Your task to perform on an android device: turn on wifi Image 0: 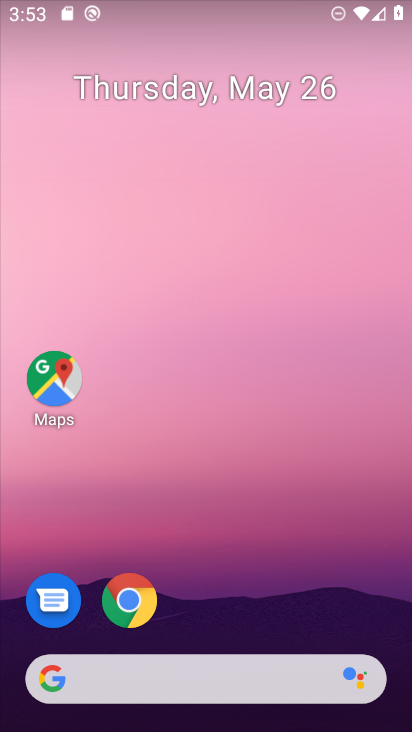
Step 0: drag from (269, 563) to (225, 39)
Your task to perform on an android device: turn on wifi Image 1: 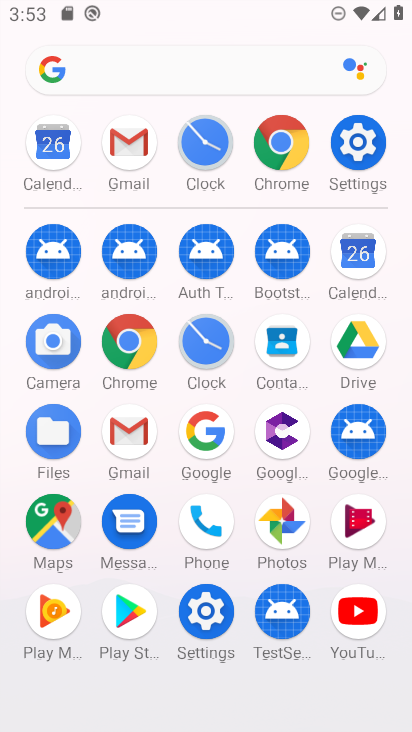
Step 1: drag from (10, 543) to (19, 188)
Your task to perform on an android device: turn on wifi Image 2: 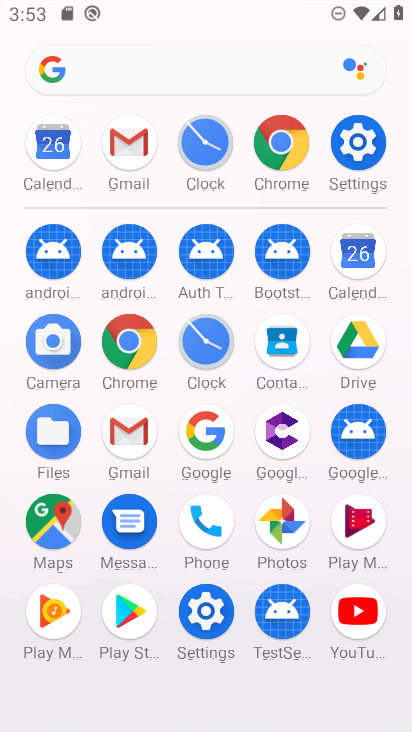
Step 2: click (205, 615)
Your task to perform on an android device: turn on wifi Image 3: 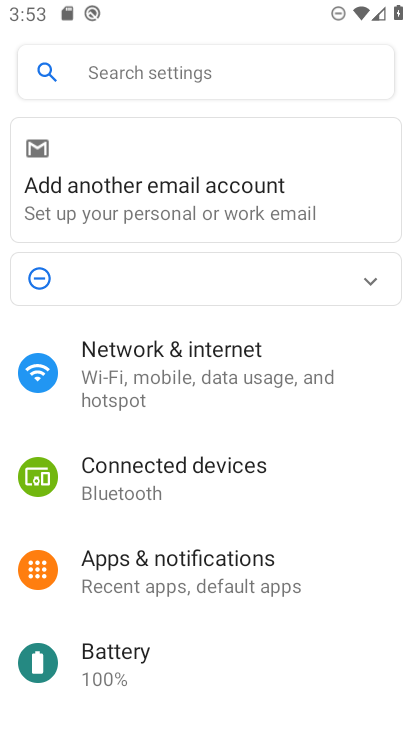
Step 3: click (234, 355)
Your task to perform on an android device: turn on wifi Image 4: 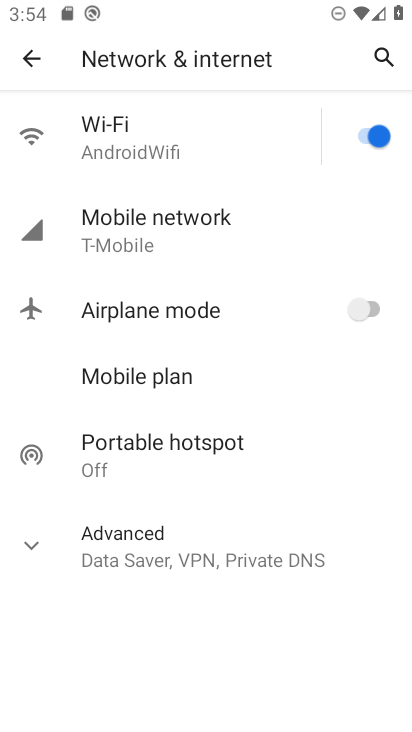
Step 4: task complete